Your task to perform on an android device: Search for Italian restaurants on Maps Image 0: 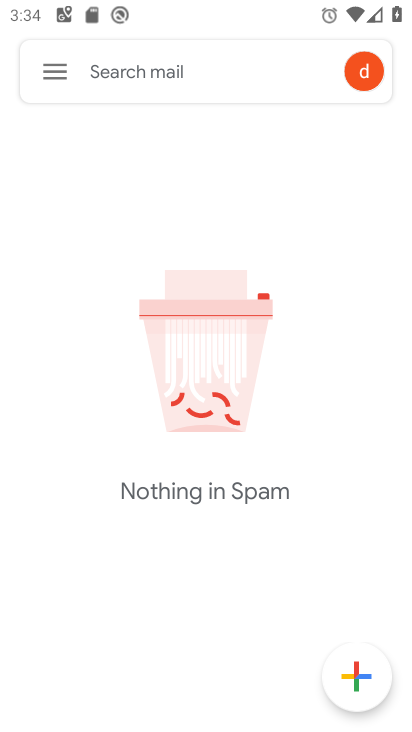
Step 0: press home button
Your task to perform on an android device: Search for Italian restaurants on Maps Image 1: 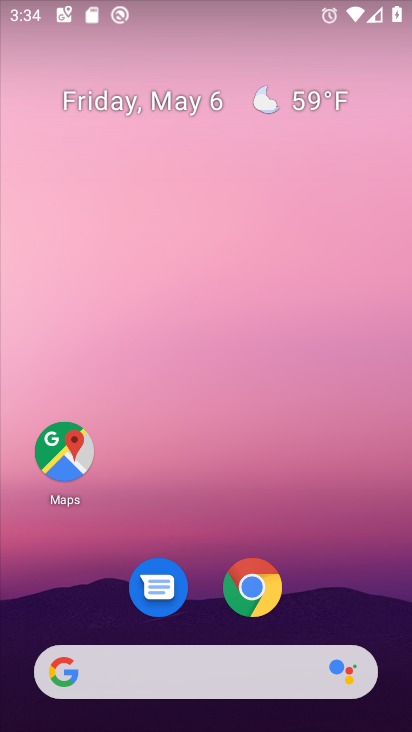
Step 1: drag from (184, 492) to (244, 18)
Your task to perform on an android device: Search for Italian restaurants on Maps Image 2: 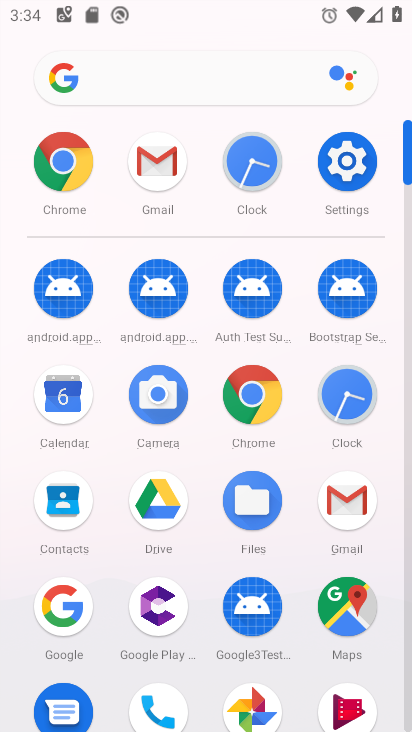
Step 2: click (333, 613)
Your task to perform on an android device: Search for Italian restaurants on Maps Image 3: 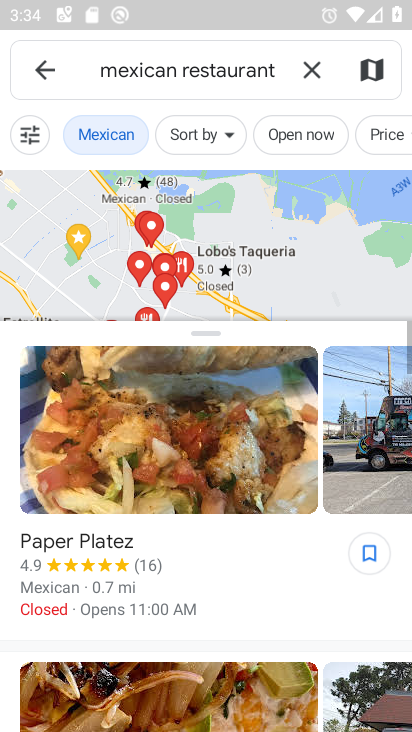
Step 3: click (311, 73)
Your task to perform on an android device: Search for Italian restaurants on Maps Image 4: 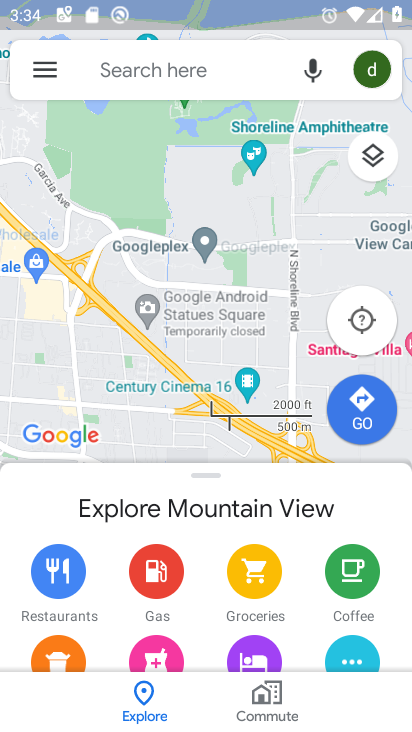
Step 4: click (240, 62)
Your task to perform on an android device: Search for Italian restaurants on Maps Image 5: 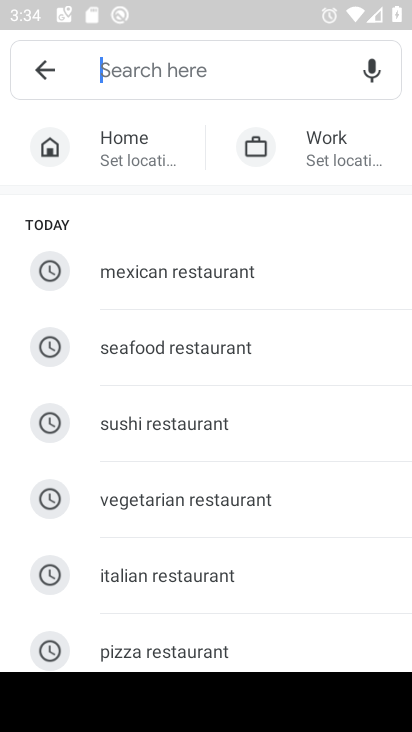
Step 5: click (149, 565)
Your task to perform on an android device: Search for Italian restaurants on Maps Image 6: 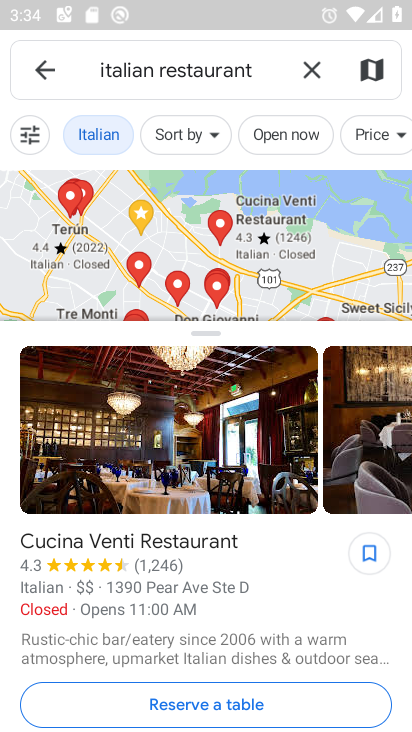
Step 6: task complete